Your task to perform on an android device: turn off smart reply in the gmail app Image 0: 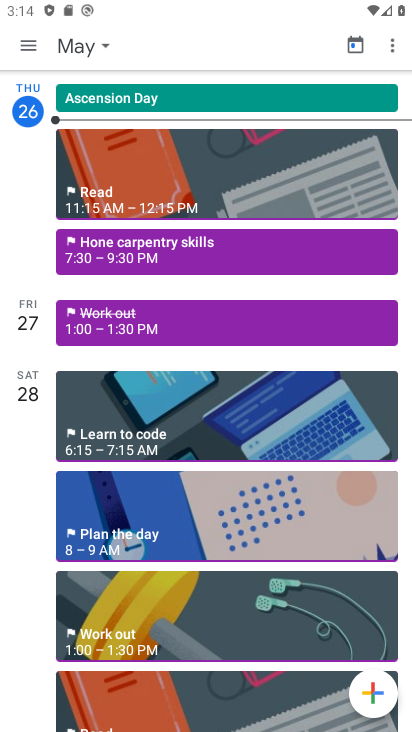
Step 0: press back button
Your task to perform on an android device: turn off smart reply in the gmail app Image 1: 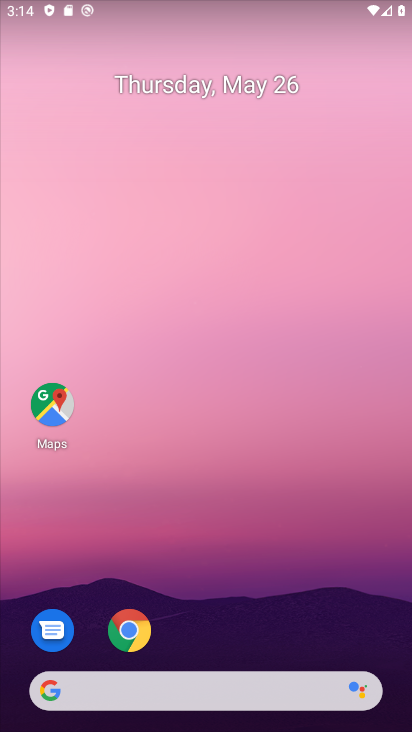
Step 1: drag from (247, 618) to (252, 380)
Your task to perform on an android device: turn off smart reply in the gmail app Image 2: 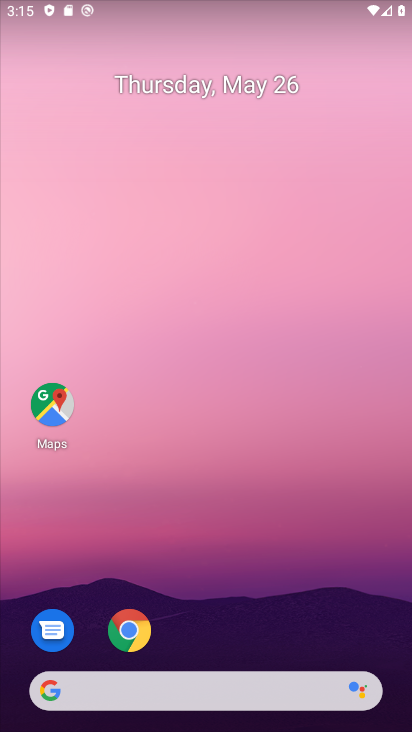
Step 2: drag from (252, 589) to (230, 220)
Your task to perform on an android device: turn off smart reply in the gmail app Image 3: 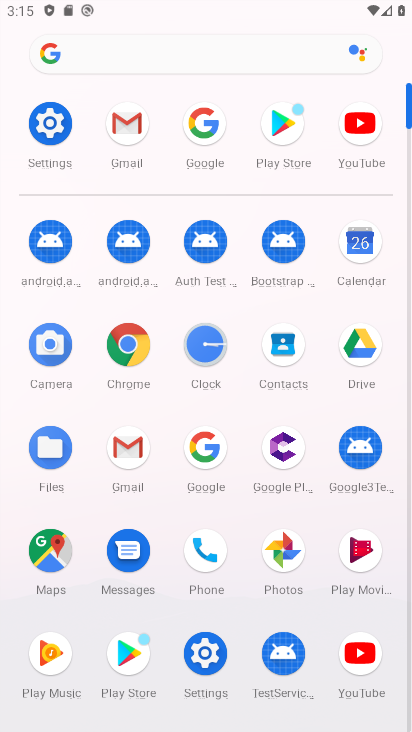
Step 3: click (129, 124)
Your task to perform on an android device: turn off smart reply in the gmail app Image 4: 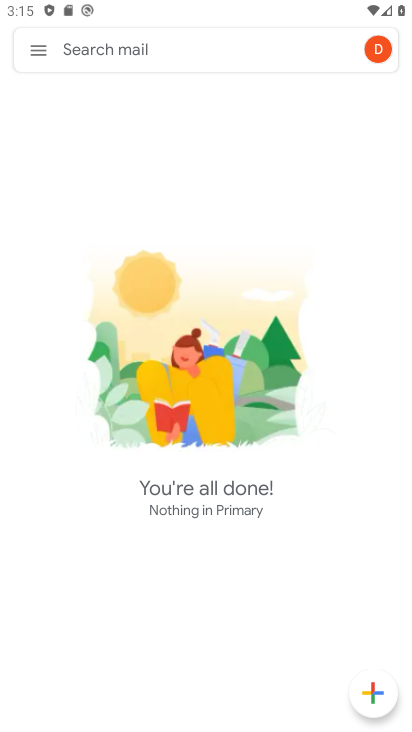
Step 4: click (36, 49)
Your task to perform on an android device: turn off smart reply in the gmail app Image 5: 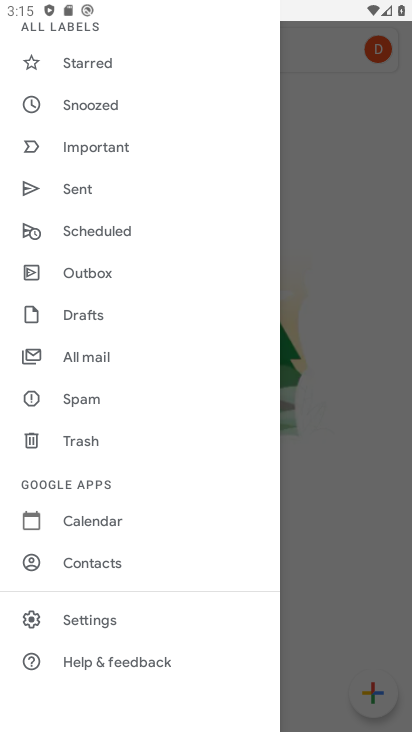
Step 5: click (97, 622)
Your task to perform on an android device: turn off smart reply in the gmail app Image 6: 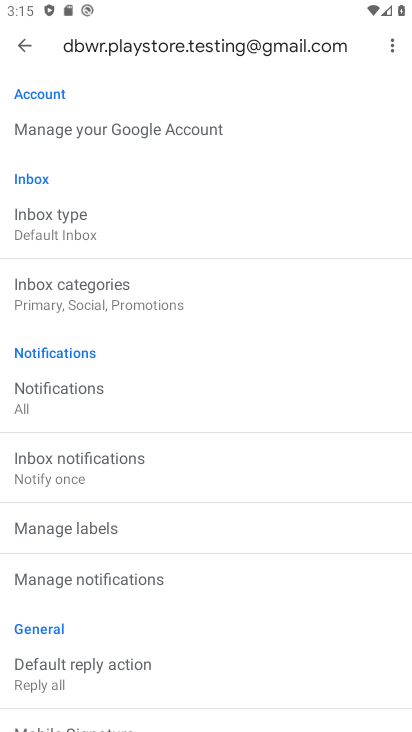
Step 6: drag from (134, 534) to (172, 438)
Your task to perform on an android device: turn off smart reply in the gmail app Image 7: 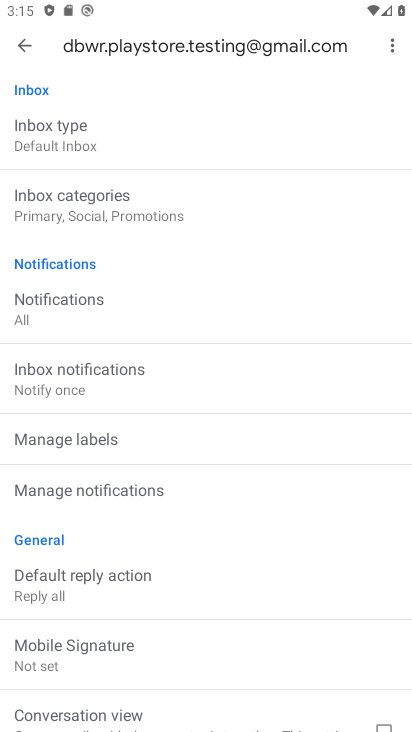
Step 7: drag from (84, 516) to (126, 431)
Your task to perform on an android device: turn off smart reply in the gmail app Image 8: 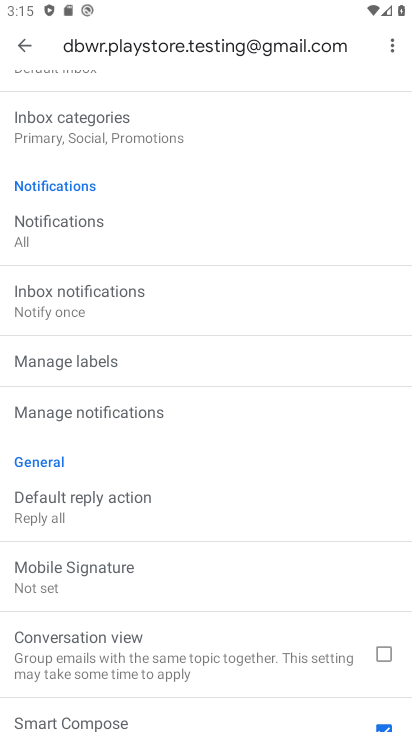
Step 8: drag from (106, 528) to (139, 440)
Your task to perform on an android device: turn off smart reply in the gmail app Image 9: 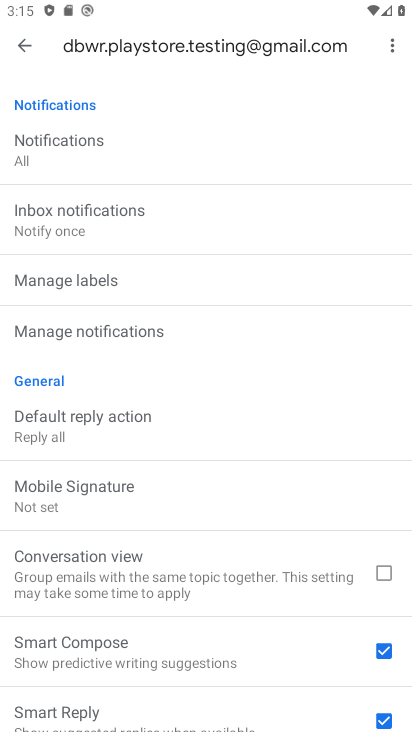
Step 9: drag from (103, 510) to (153, 429)
Your task to perform on an android device: turn off smart reply in the gmail app Image 10: 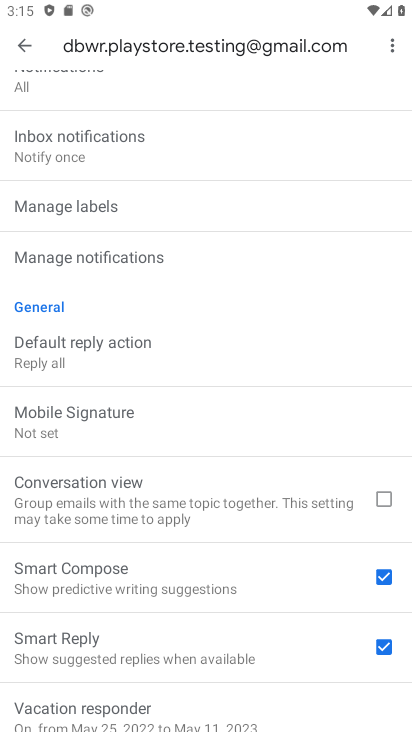
Step 10: drag from (75, 540) to (127, 447)
Your task to perform on an android device: turn off smart reply in the gmail app Image 11: 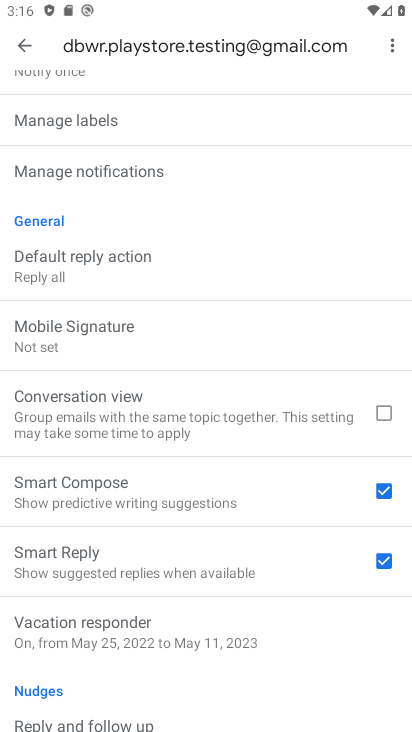
Step 11: click (379, 562)
Your task to perform on an android device: turn off smart reply in the gmail app Image 12: 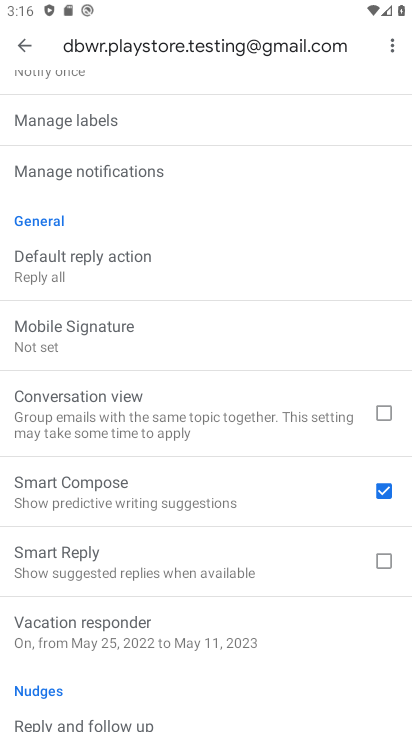
Step 12: task complete